Your task to perform on an android device: toggle sleep mode Image 0: 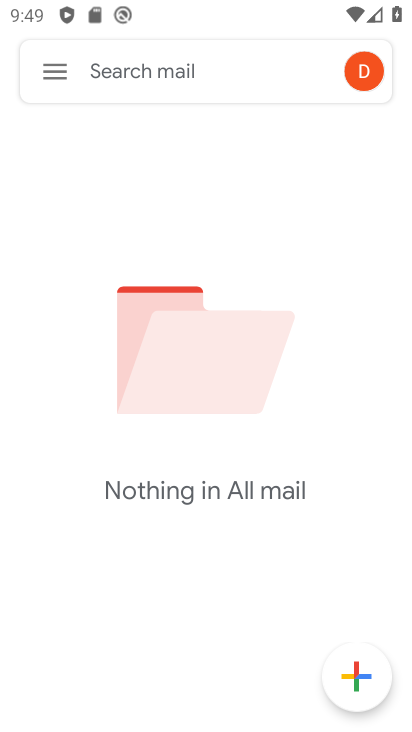
Step 0: press home button
Your task to perform on an android device: toggle sleep mode Image 1: 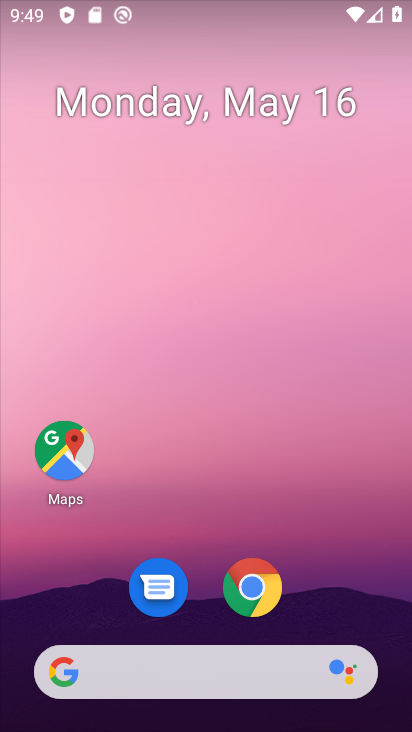
Step 1: drag from (210, 624) to (144, 31)
Your task to perform on an android device: toggle sleep mode Image 2: 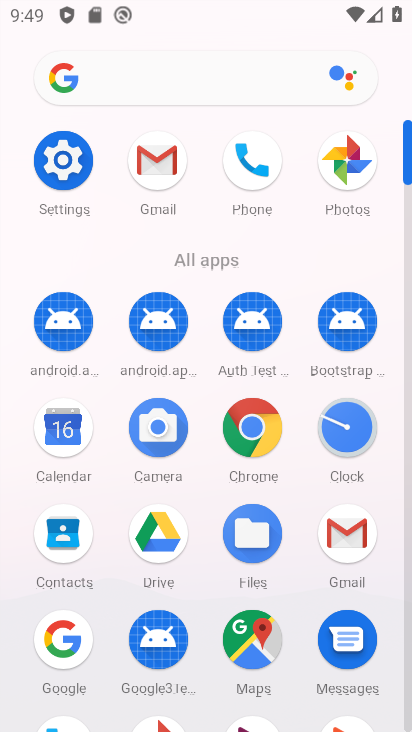
Step 2: click (80, 165)
Your task to perform on an android device: toggle sleep mode Image 3: 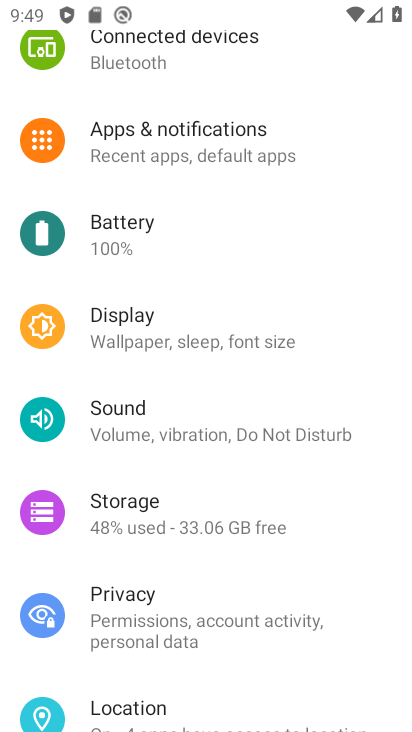
Step 3: click (139, 341)
Your task to perform on an android device: toggle sleep mode Image 4: 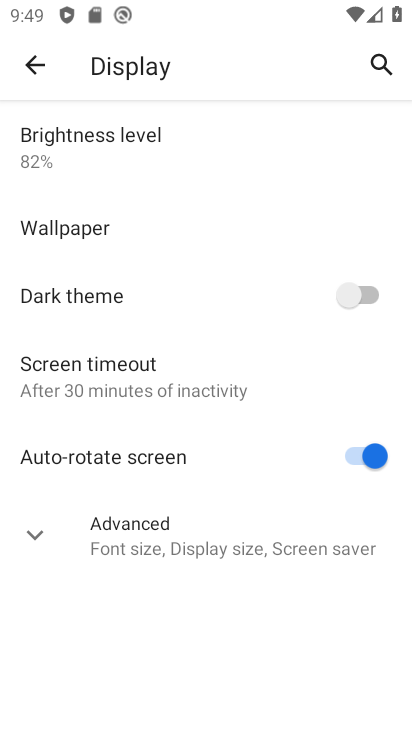
Step 4: task complete